Your task to perform on an android device: Open the map Image 0: 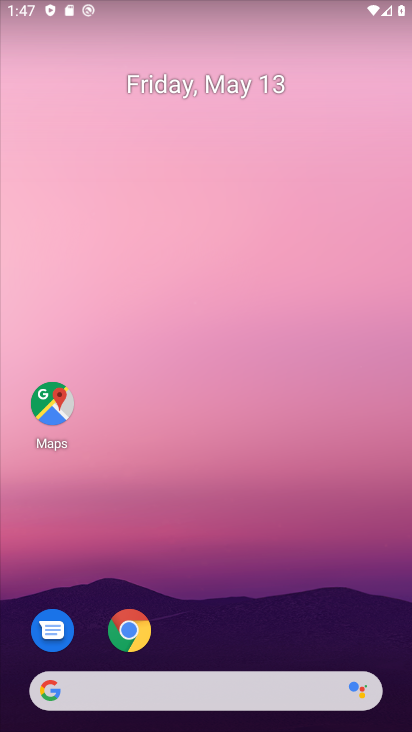
Step 0: click (43, 420)
Your task to perform on an android device: Open the map Image 1: 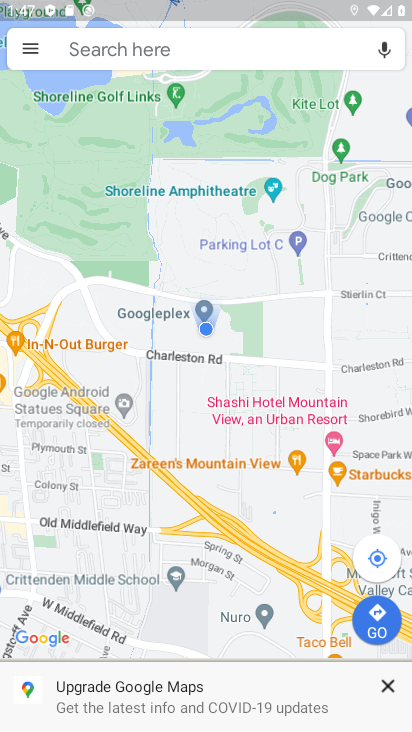
Step 1: task complete